Your task to perform on an android device: open app "Truecaller" Image 0: 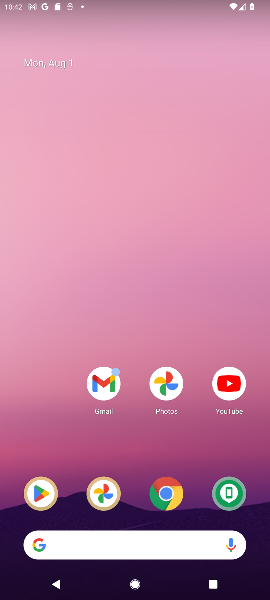
Step 0: click (48, 503)
Your task to perform on an android device: open app "Truecaller" Image 1: 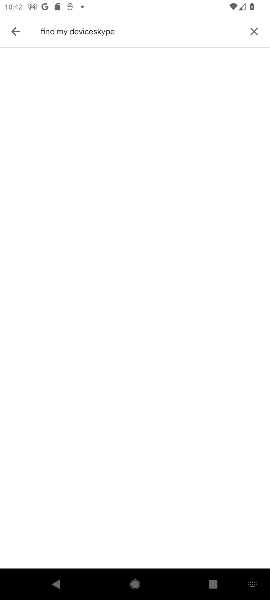
Step 1: click (254, 31)
Your task to perform on an android device: open app "Truecaller" Image 2: 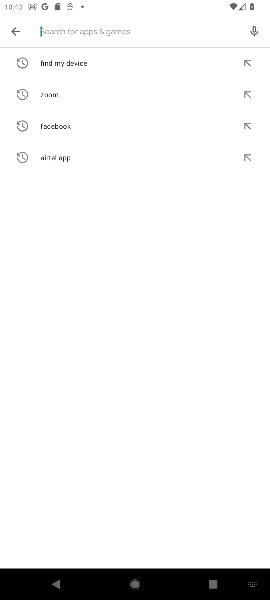
Step 2: type "truecaller"
Your task to perform on an android device: open app "Truecaller" Image 3: 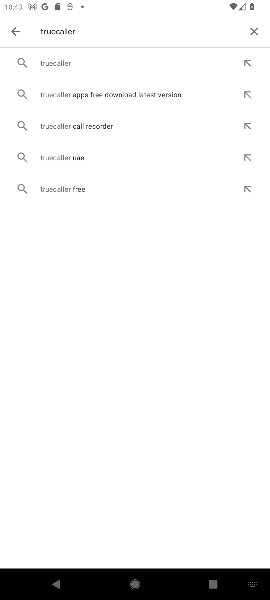
Step 3: click (81, 69)
Your task to perform on an android device: open app "Truecaller" Image 4: 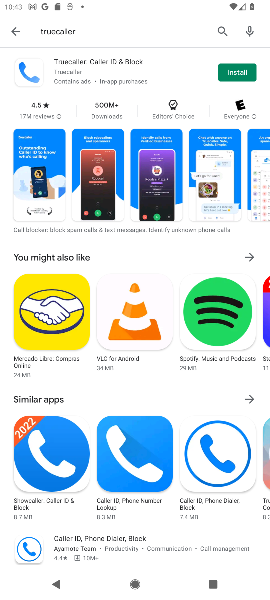
Step 4: click (218, 76)
Your task to perform on an android device: open app "Truecaller" Image 5: 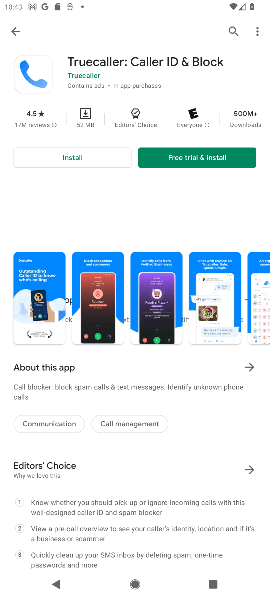
Step 5: task complete